Your task to perform on an android device: Go to Maps Image 0: 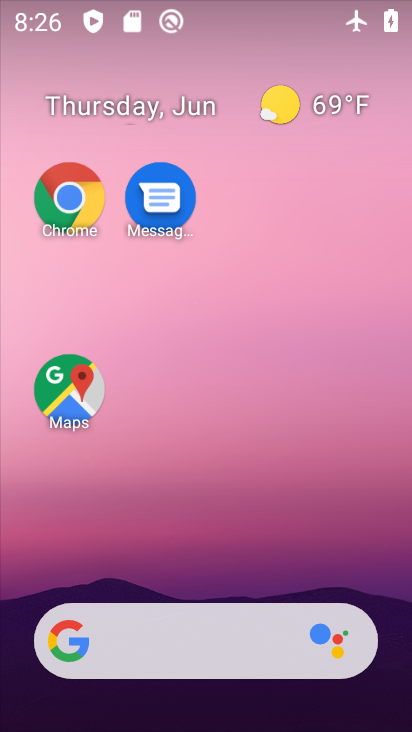
Step 0: click (86, 381)
Your task to perform on an android device: Go to Maps Image 1: 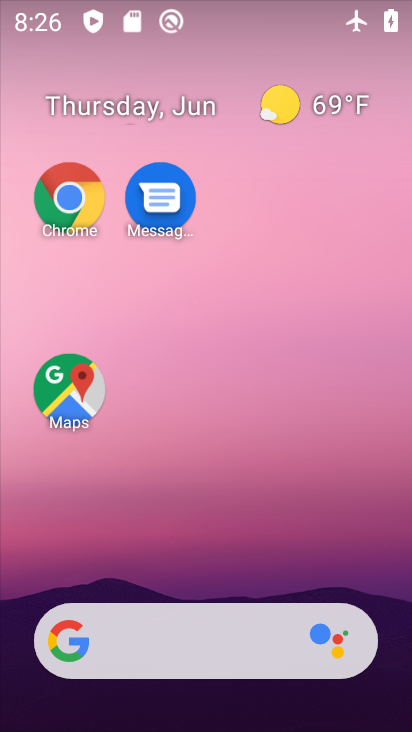
Step 1: click (86, 381)
Your task to perform on an android device: Go to Maps Image 2: 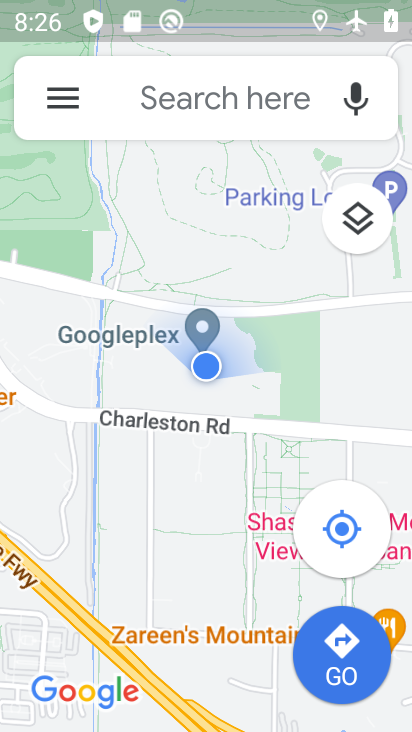
Step 2: task complete